Your task to perform on an android device: Open calendar and show me the first week of next month Image 0: 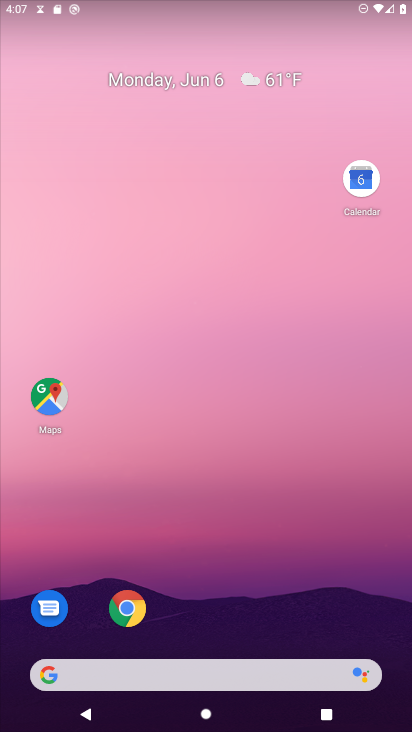
Step 0: drag from (315, 581) to (334, 14)
Your task to perform on an android device: Open calendar and show me the first week of next month Image 1: 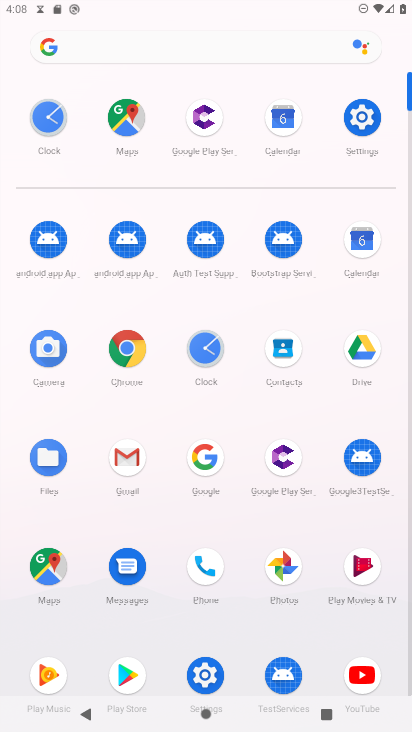
Step 1: click (362, 246)
Your task to perform on an android device: Open calendar and show me the first week of next month Image 2: 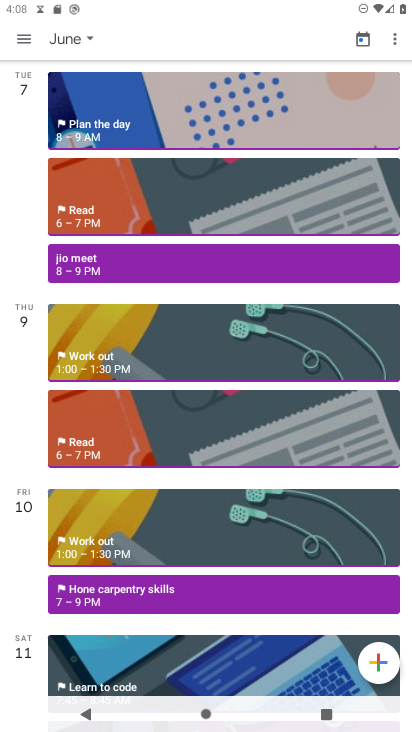
Step 2: click (71, 35)
Your task to perform on an android device: Open calendar and show me the first week of next month Image 3: 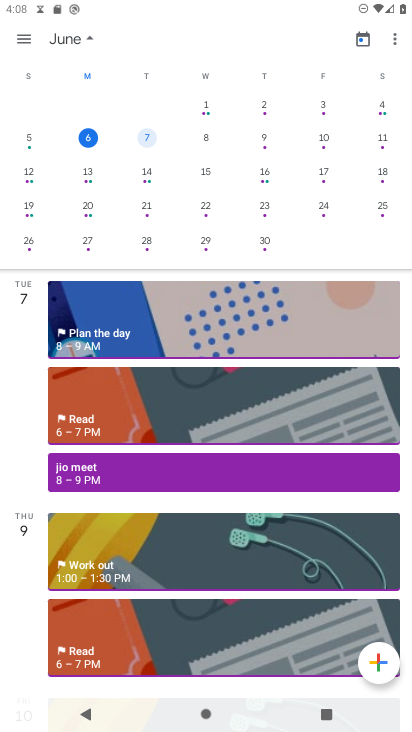
Step 3: task complete